Your task to perform on an android device: turn on priority inbox in the gmail app Image 0: 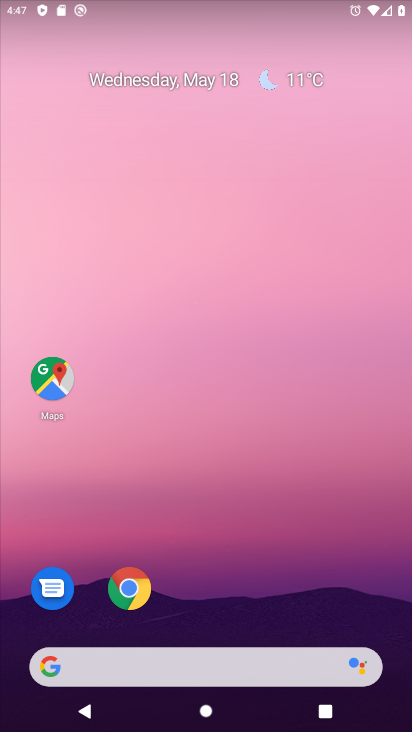
Step 0: drag from (293, 562) to (259, 80)
Your task to perform on an android device: turn on priority inbox in the gmail app Image 1: 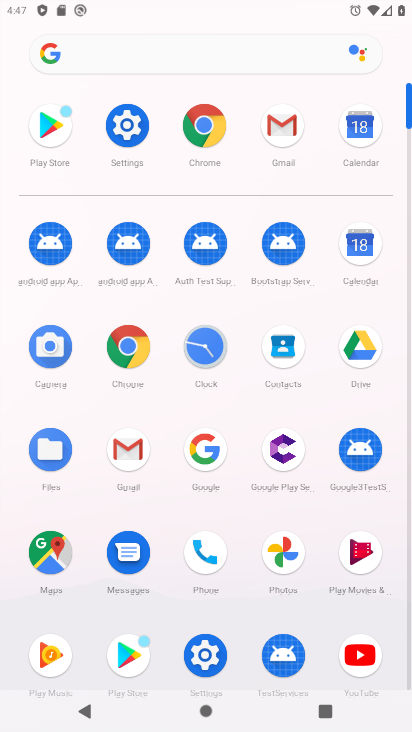
Step 1: click (282, 122)
Your task to perform on an android device: turn on priority inbox in the gmail app Image 2: 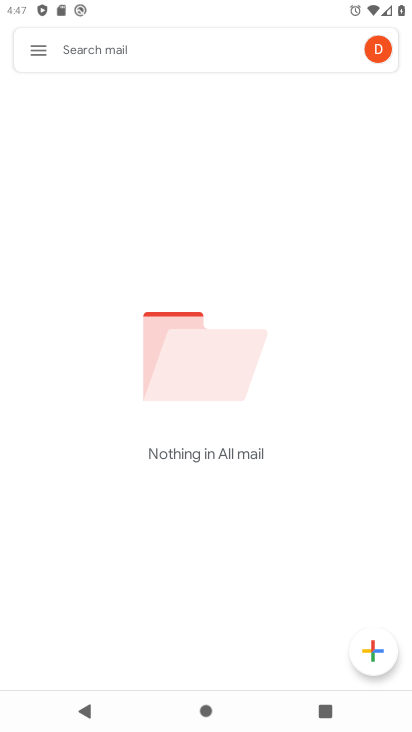
Step 2: click (44, 51)
Your task to perform on an android device: turn on priority inbox in the gmail app Image 3: 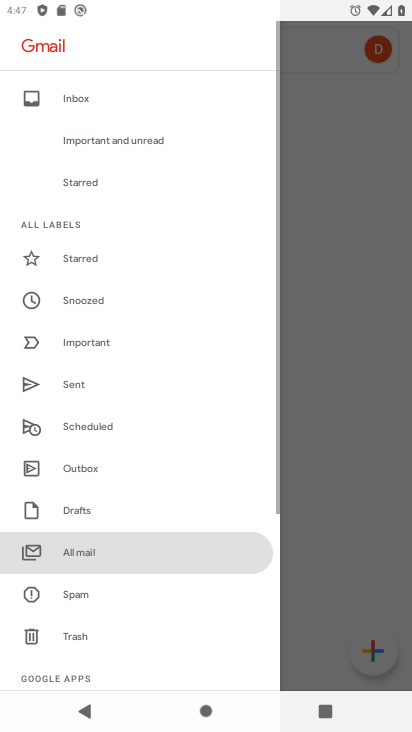
Step 3: drag from (137, 517) to (179, 74)
Your task to perform on an android device: turn on priority inbox in the gmail app Image 4: 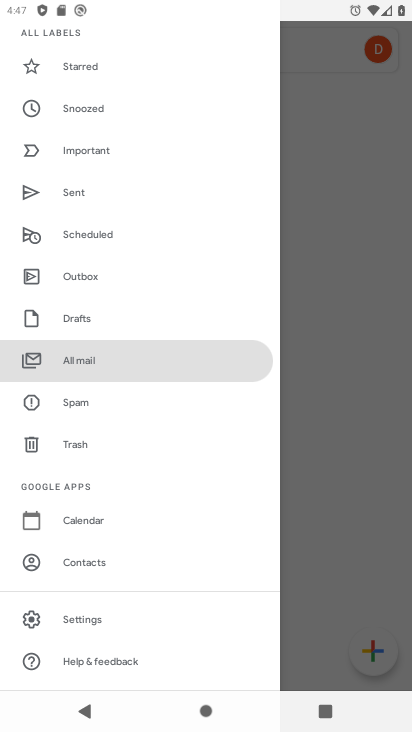
Step 4: click (65, 609)
Your task to perform on an android device: turn on priority inbox in the gmail app Image 5: 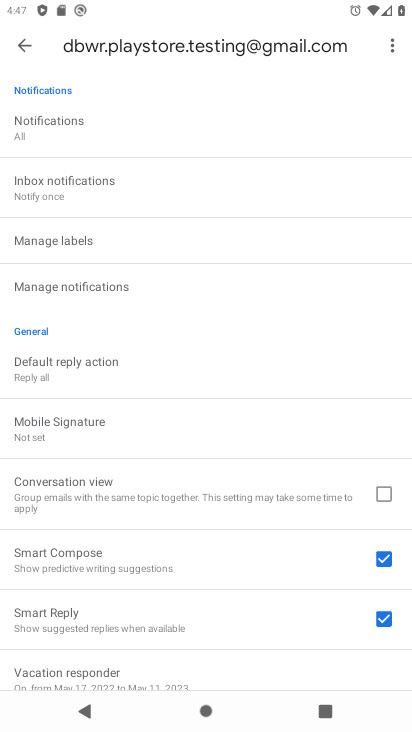
Step 5: drag from (132, 373) to (173, 294)
Your task to perform on an android device: turn on priority inbox in the gmail app Image 6: 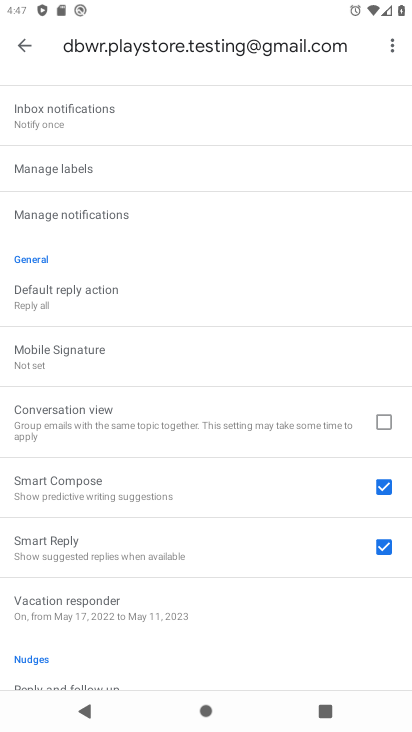
Step 6: drag from (122, 217) to (192, 700)
Your task to perform on an android device: turn on priority inbox in the gmail app Image 7: 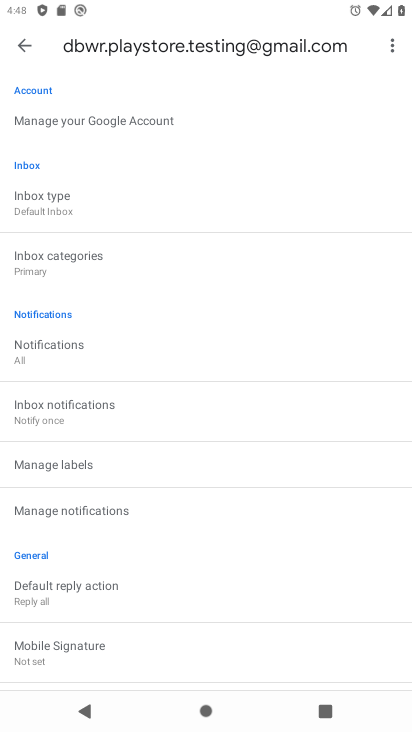
Step 7: click (62, 198)
Your task to perform on an android device: turn on priority inbox in the gmail app Image 8: 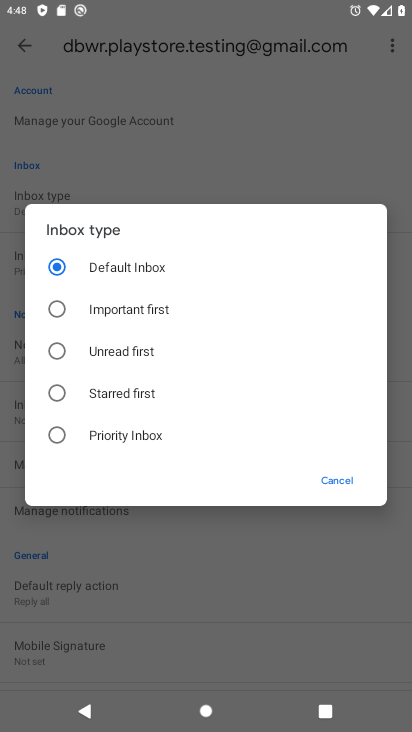
Step 8: task complete